Your task to perform on an android device: set the stopwatch Image 0: 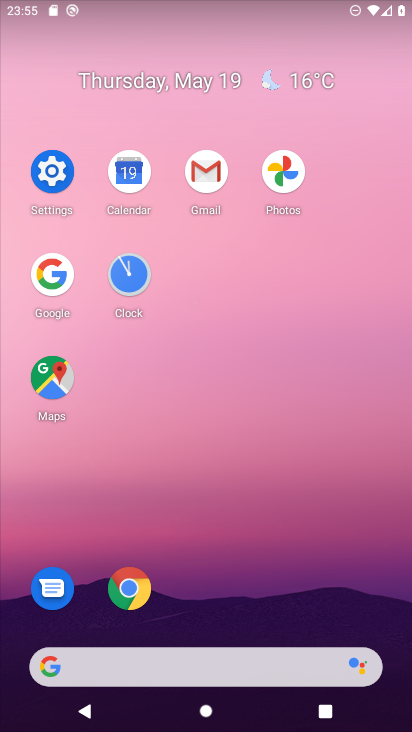
Step 0: click (129, 287)
Your task to perform on an android device: set the stopwatch Image 1: 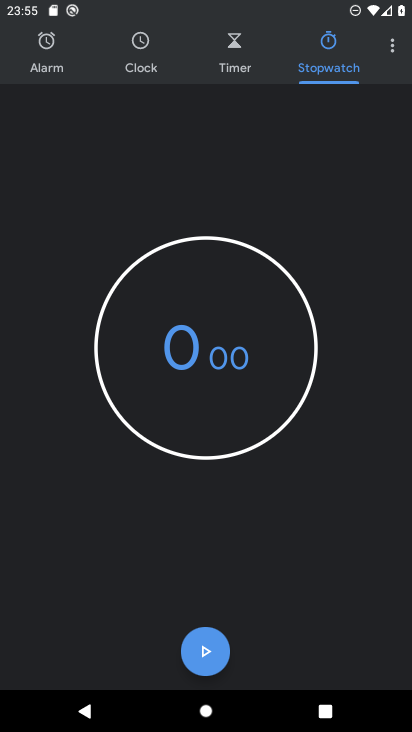
Step 1: click (212, 647)
Your task to perform on an android device: set the stopwatch Image 2: 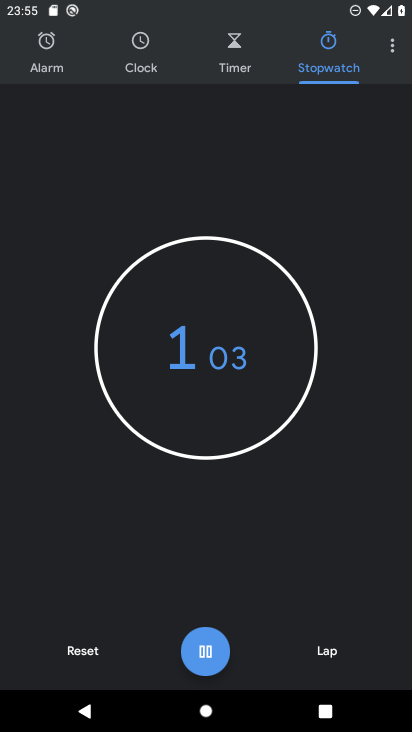
Step 2: task complete